Your task to perform on an android device: uninstall "Pandora - Music & Podcasts" Image 0: 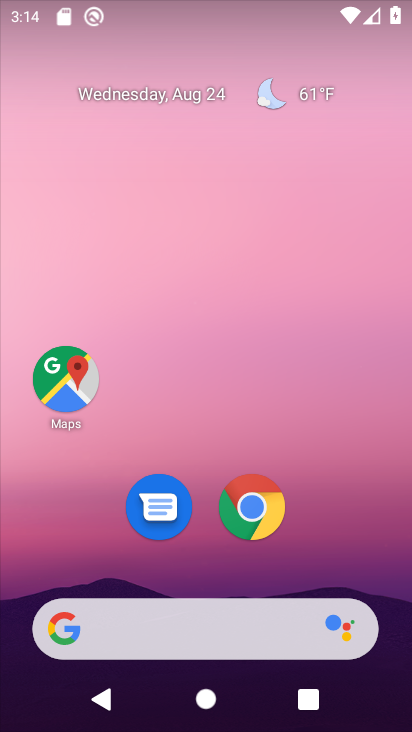
Step 0: drag from (208, 611) to (246, 151)
Your task to perform on an android device: uninstall "Pandora - Music & Podcasts" Image 1: 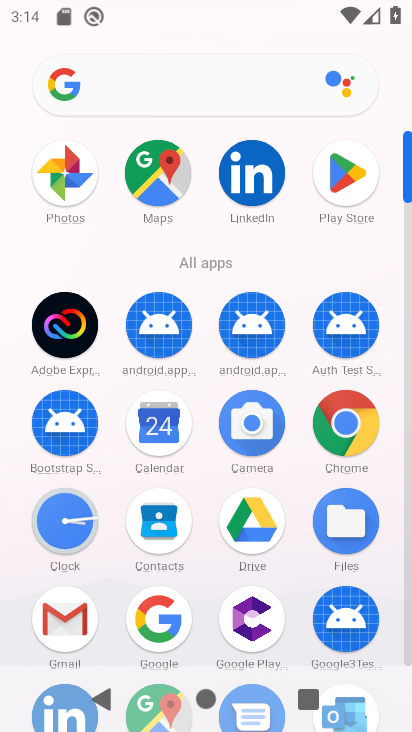
Step 1: click (357, 177)
Your task to perform on an android device: uninstall "Pandora - Music & Podcasts" Image 2: 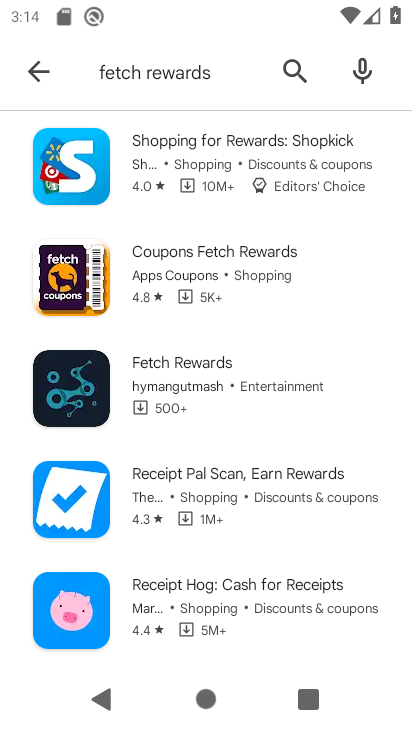
Step 2: press back button
Your task to perform on an android device: uninstall "Pandora - Music & Podcasts" Image 3: 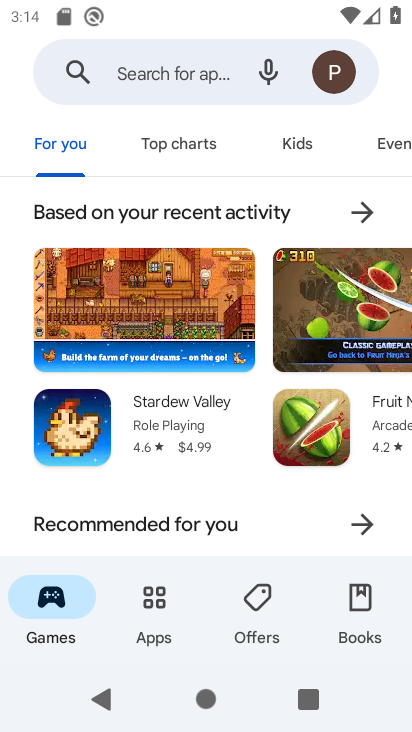
Step 3: click (181, 74)
Your task to perform on an android device: uninstall "Pandora - Music & Podcasts" Image 4: 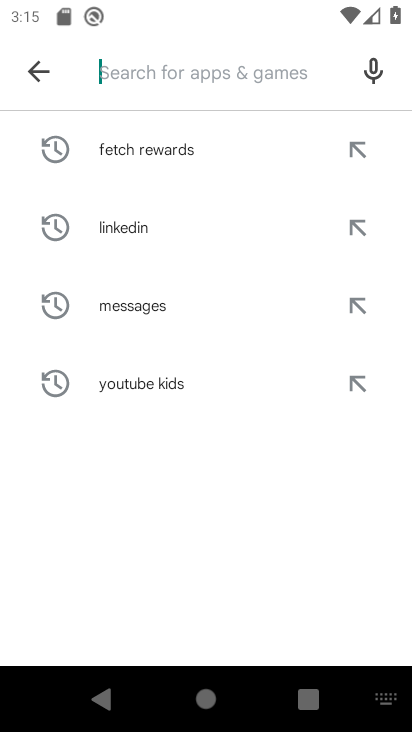
Step 4: type "Pandora - Music & Podcasts"
Your task to perform on an android device: uninstall "Pandora - Music & Podcasts" Image 5: 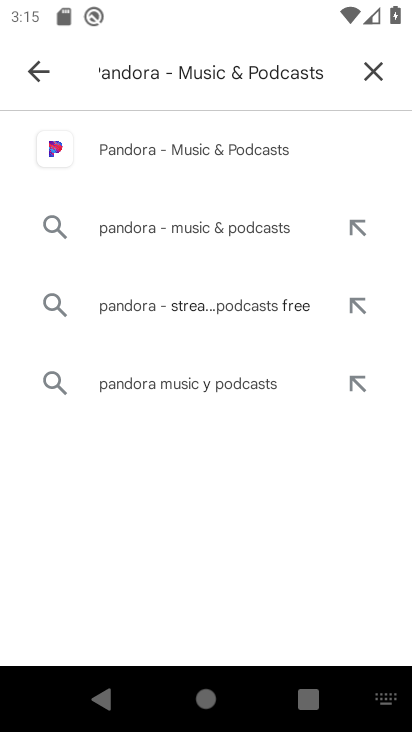
Step 5: click (259, 151)
Your task to perform on an android device: uninstall "Pandora - Music & Podcasts" Image 6: 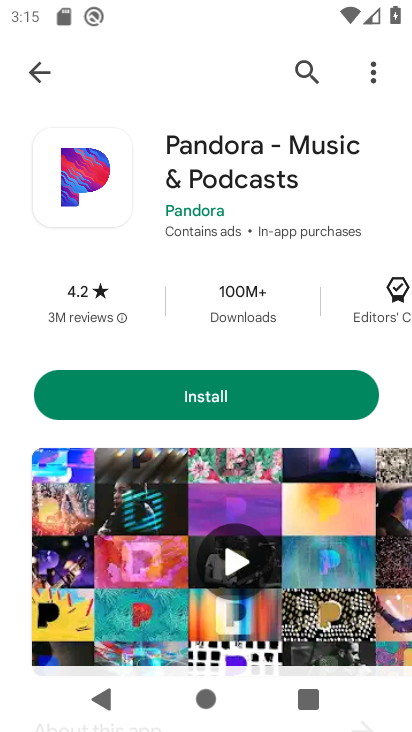
Step 6: task complete